Your task to perform on an android device: What's the weather going to be this weekend? Image 0: 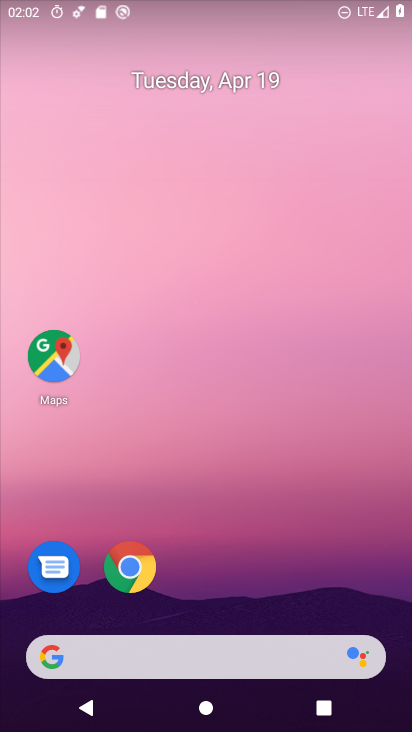
Step 0: drag from (293, 486) to (262, 44)
Your task to perform on an android device: What's the weather going to be this weekend? Image 1: 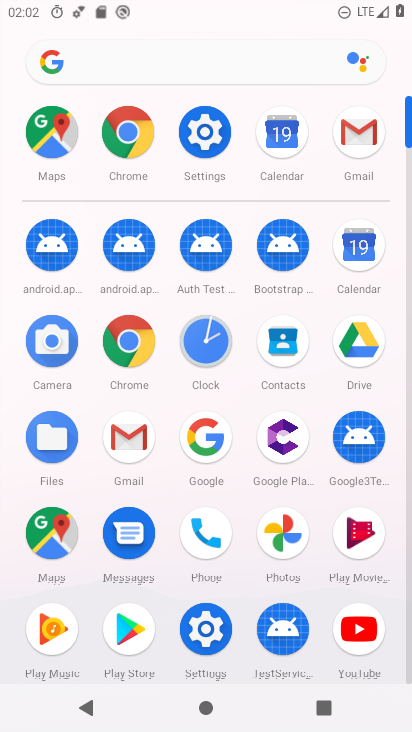
Step 1: drag from (247, 101) to (272, 658)
Your task to perform on an android device: What's the weather going to be this weekend? Image 2: 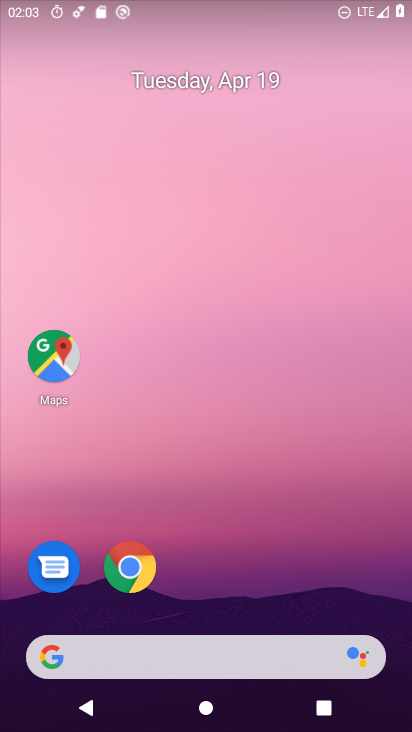
Step 2: drag from (273, 499) to (237, 57)
Your task to perform on an android device: What's the weather going to be this weekend? Image 3: 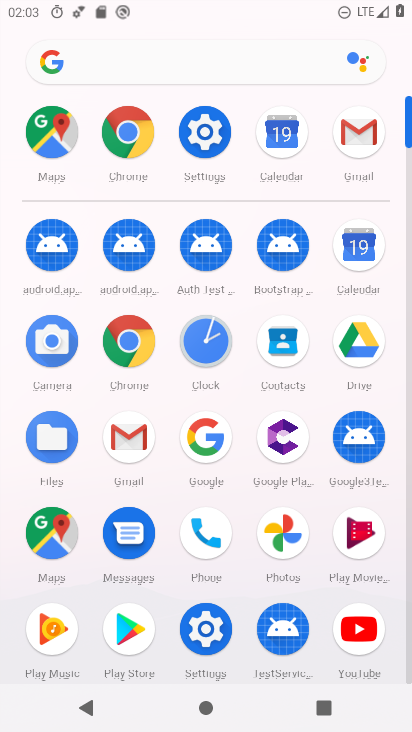
Step 3: drag from (250, 585) to (216, 201)
Your task to perform on an android device: What's the weather going to be this weekend? Image 4: 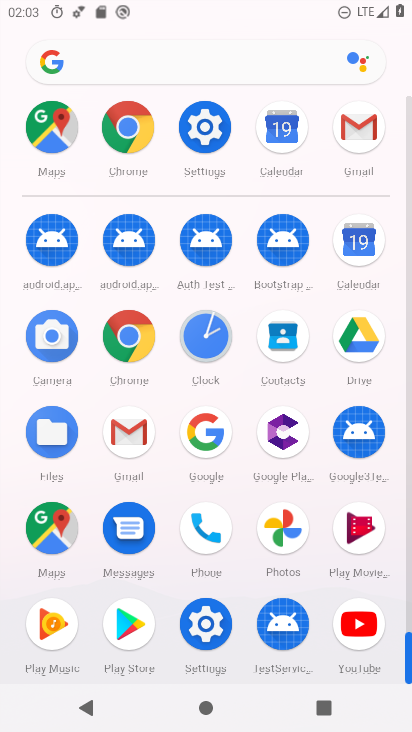
Step 4: click (129, 131)
Your task to perform on an android device: What's the weather going to be this weekend? Image 5: 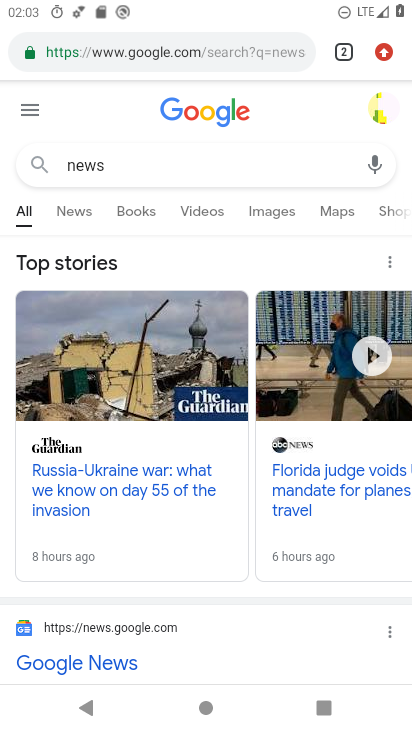
Step 5: drag from (360, 211) to (14, 238)
Your task to perform on an android device: What's the weather going to be this weekend? Image 6: 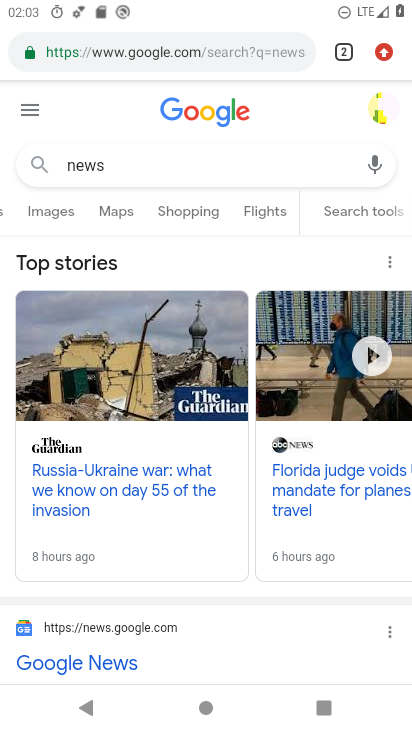
Step 6: drag from (296, 217) to (15, 187)
Your task to perform on an android device: What's the weather going to be this weekend? Image 7: 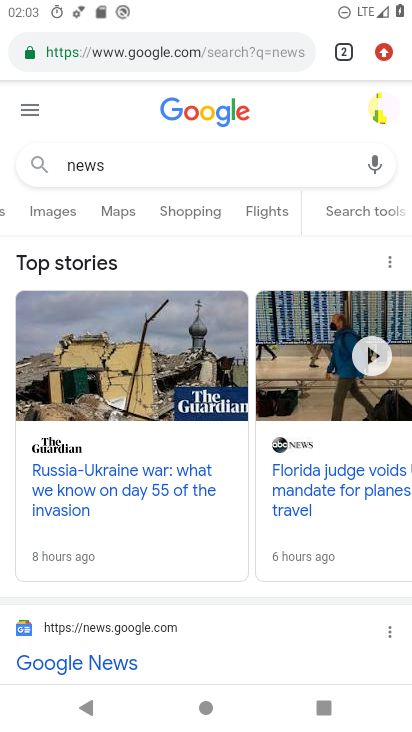
Step 7: click (142, 161)
Your task to perform on an android device: What's the weather going to be this weekend? Image 8: 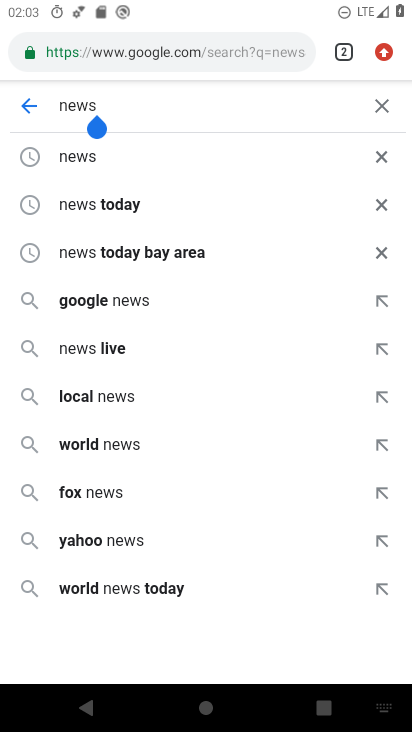
Step 8: click (385, 99)
Your task to perform on an android device: What's the weather going to be this weekend? Image 9: 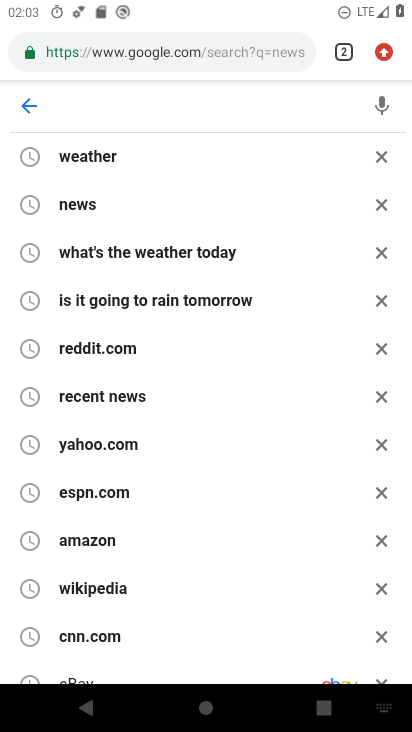
Step 9: click (138, 157)
Your task to perform on an android device: What's the weather going to be this weekend? Image 10: 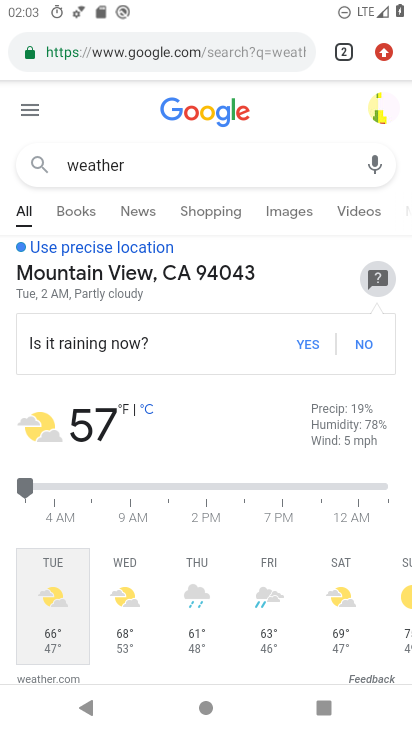
Step 10: task complete